Your task to perform on an android device: find which apps use the phone's location Image 0: 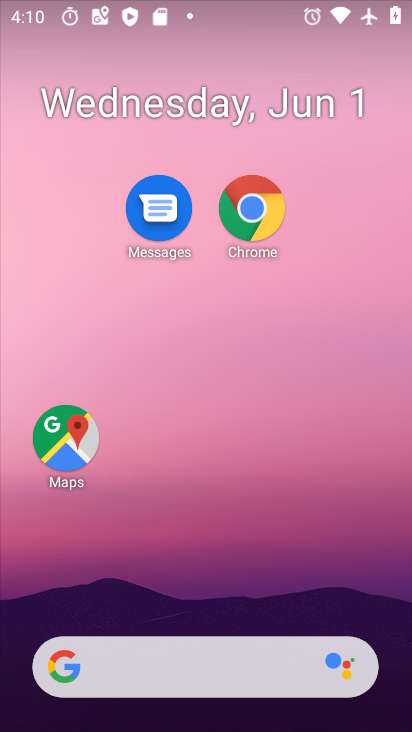
Step 0: drag from (208, 614) to (182, 158)
Your task to perform on an android device: find which apps use the phone's location Image 1: 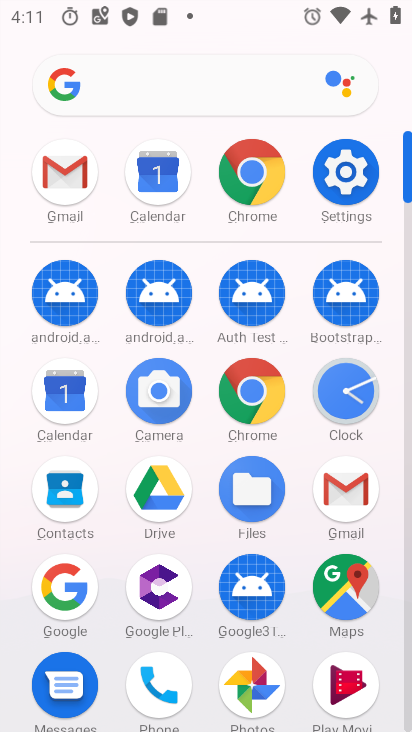
Step 1: click (334, 175)
Your task to perform on an android device: find which apps use the phone's location Image 2: 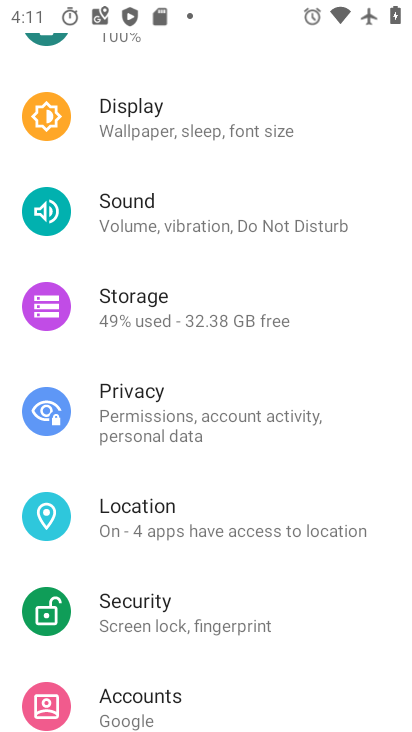
Step 2: click (174, 511)
Your task to perform on an android device: find which apps use the phone's location Image 3: 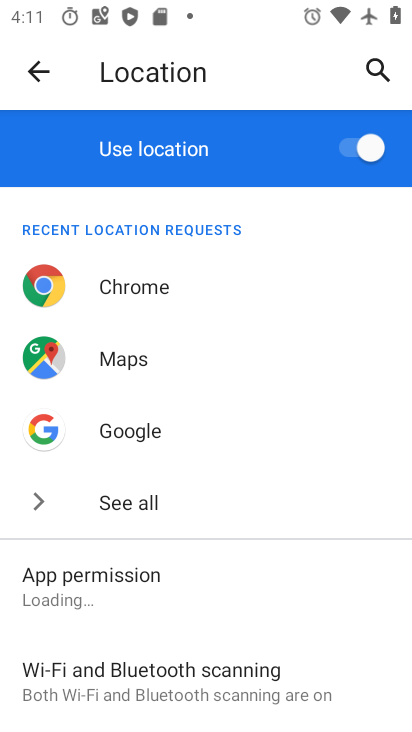
Step 3: drag from (168, 583) to (186, 424)
Your task to perform on an android device: find which apps use the phone's location Image 4: 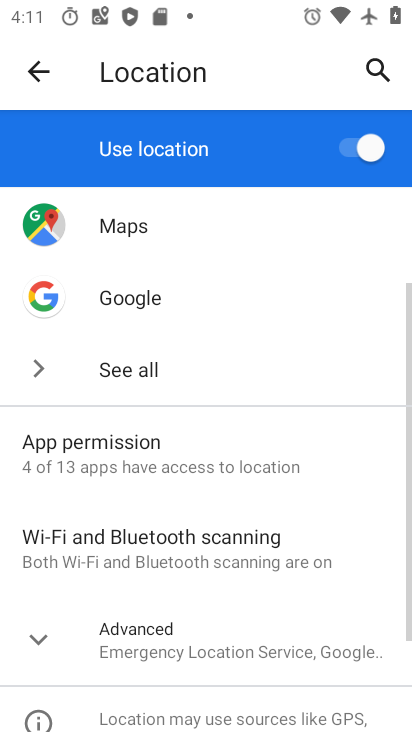
Step 4: click (168, 437)
Your task to perform on an android device: find which apps use the phone's location Image 5: 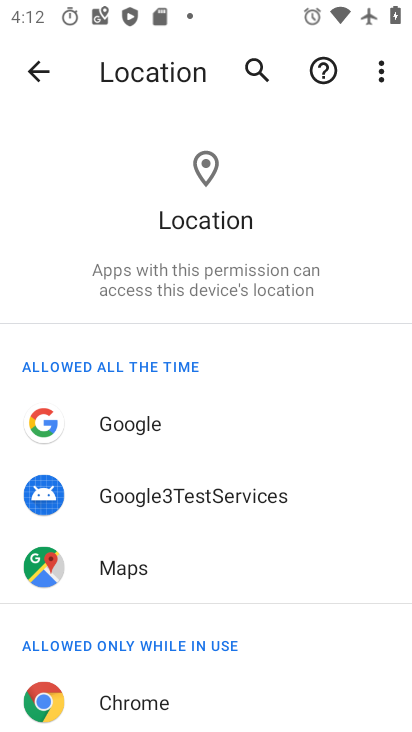
Step 5: press home button
Your task to perform on an android device: find which apps use the phone's location Image 6: 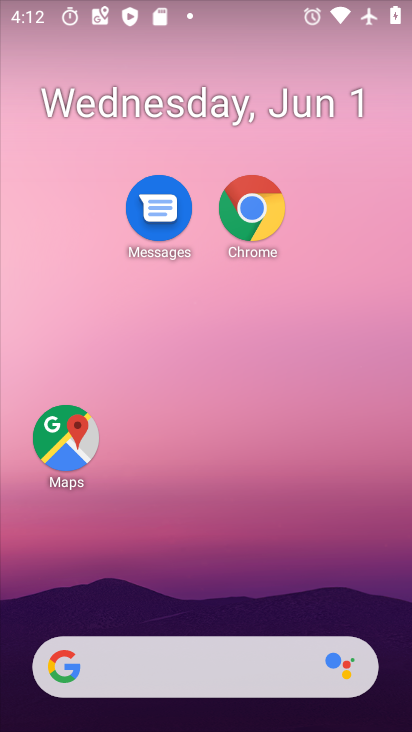
Step 6: drag from (190, 610) to (194, 203)
Your task to perform on an android device: find which apps use the phone's location Image 7: 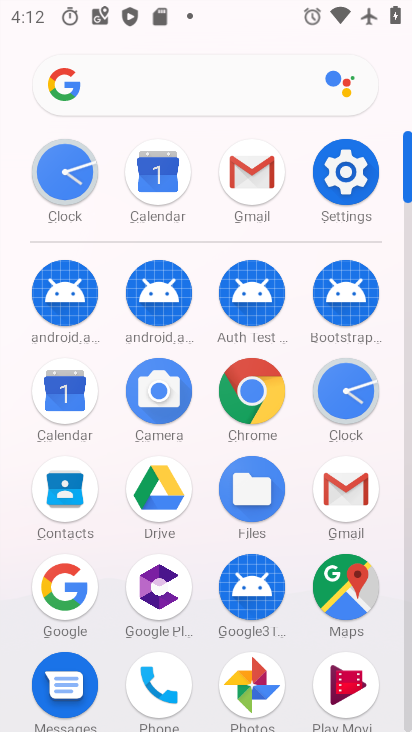
Step 7: click (328, 174)
Your task to perform on an android device: find which apps use the phone's location Image 8: 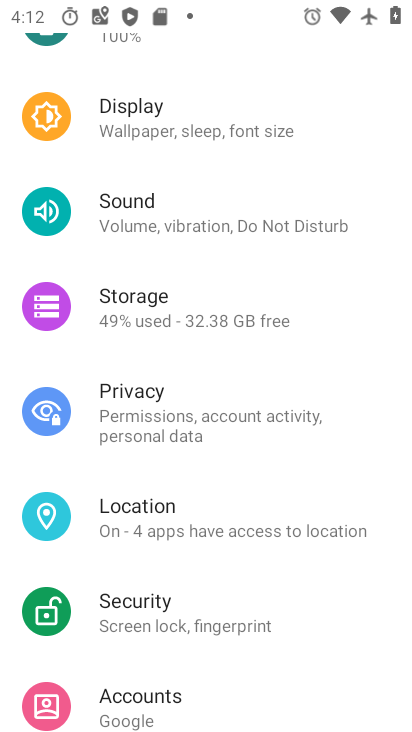
Step 8: click (156, 513)
Your task to perform on an android device: find which apps use the phone's location Image 9: 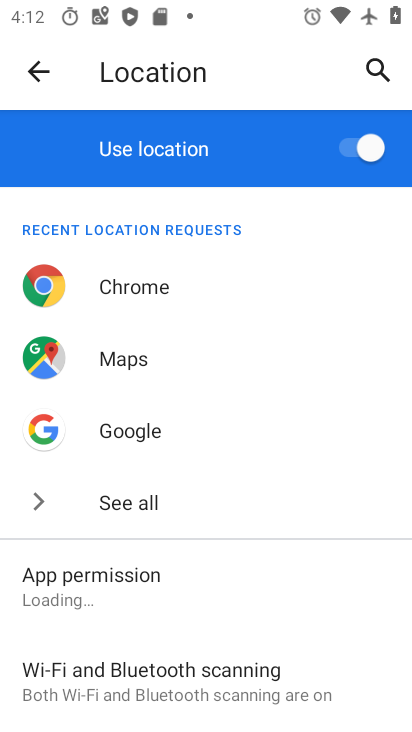
Step 9: click (142, 596)
Your task to perform on an android device: find which apps use the phone's location Image 10: 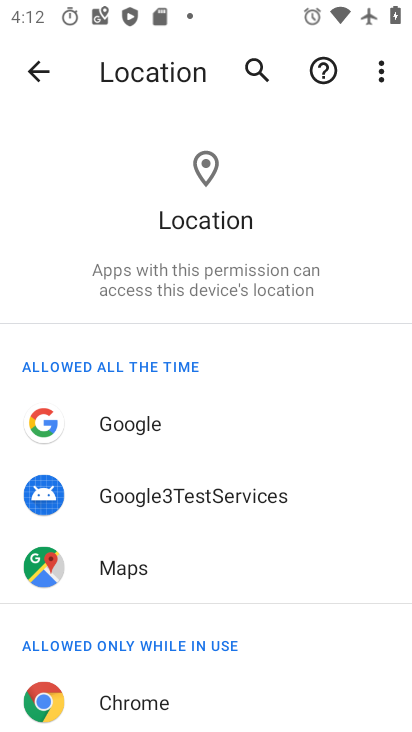
Step 10: task complete